Your task to perform on an android device: turn on improve location accuracy Image 0: 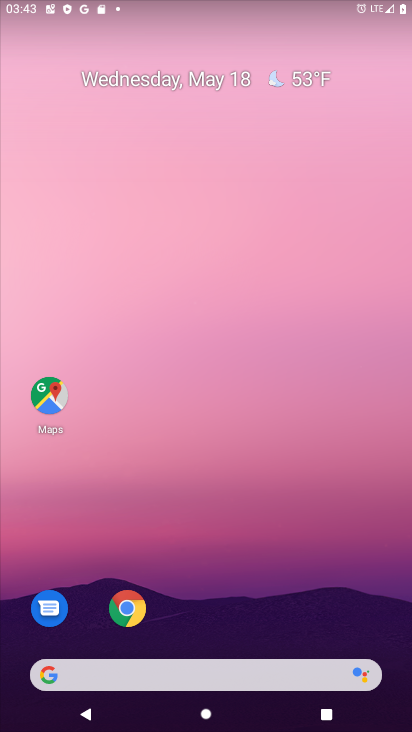
Step 0: drag from (363, 639) to (331, 6)
Your task to perform on an android device: turn on improve location accuracy Image 1: 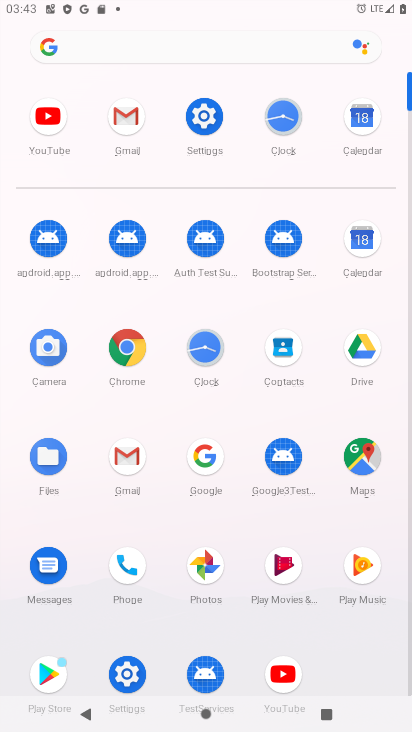
Step 1: click (210, 109)
Your task to perform on an android device: turn on improve location accuracy Image 2: 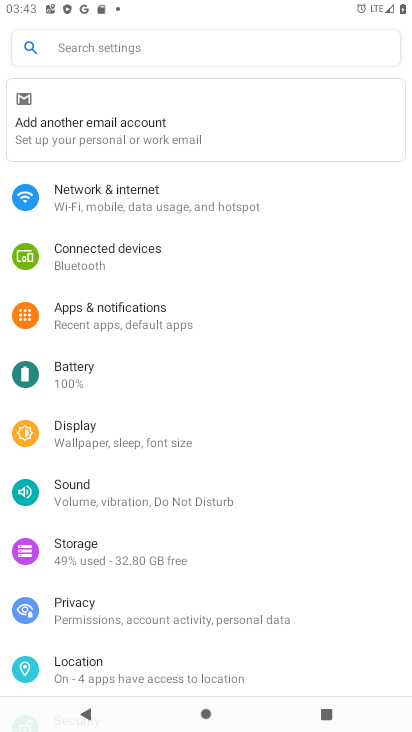
Step 2: click (79, 666)
Your task to perform on an android device: turn on improve location accuracy Image 3: 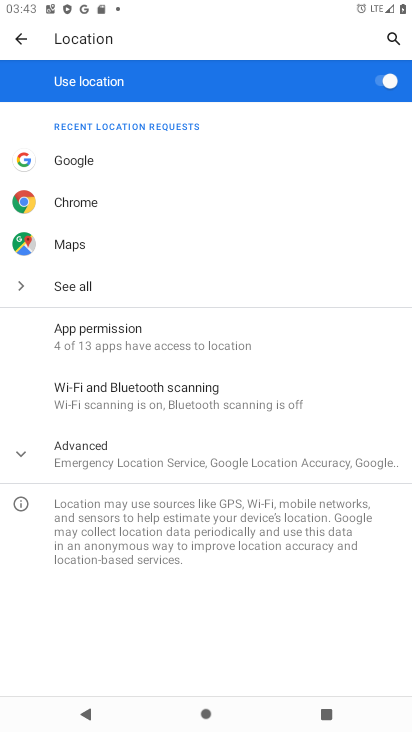
Step 3: click (12, 464)
Your task to perform on an android device: turn on improve location accuracy Image 4: 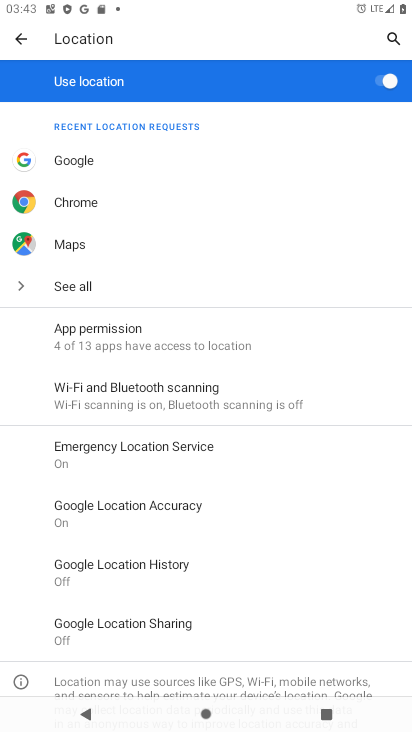
Step 4: click (117, 506)
Your task to perform on an android device: turn on improve location accuracy Image 5: 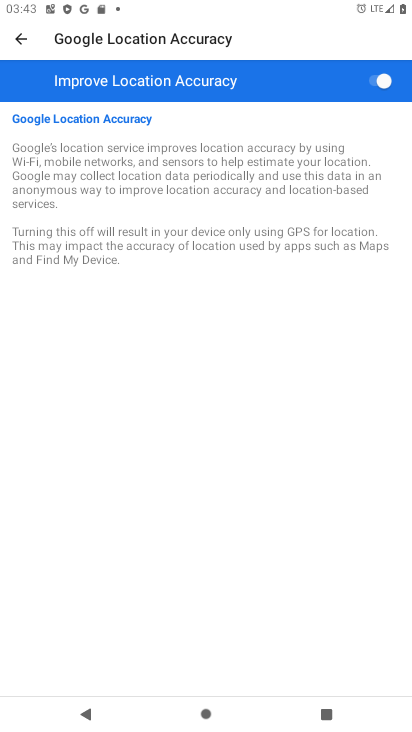
Step 5: task complete